Your task to perform on an android device: turn off picture-in-picture Image 0: 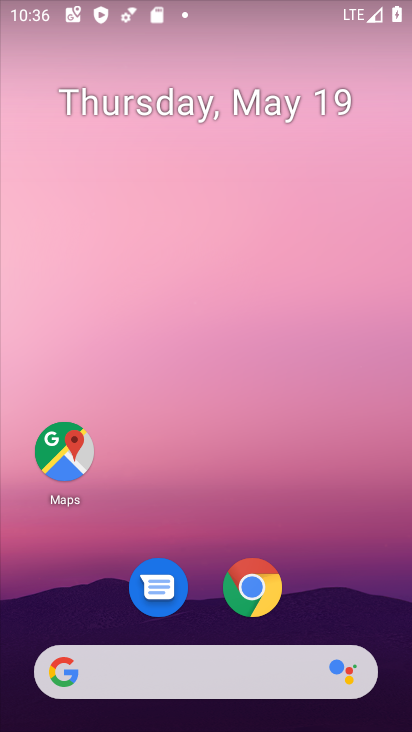
Step 0: click (271, 580)
Your task to perform on an android device: turn off picture-in-picture Image 1: 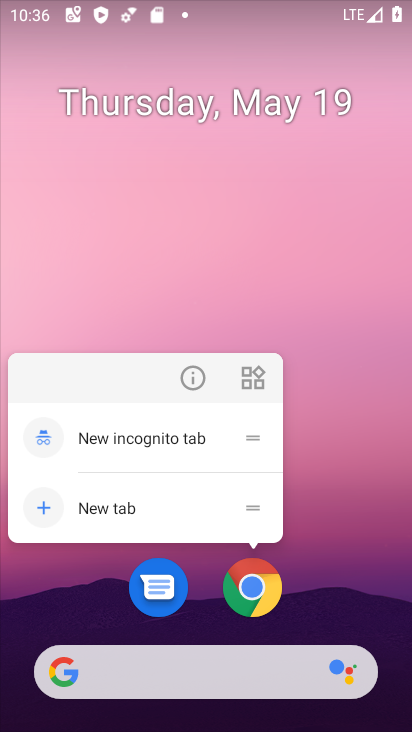
Step 1: click (178, 373)
Your task to perform on an android device: turn off picture-in-picture Image 2: 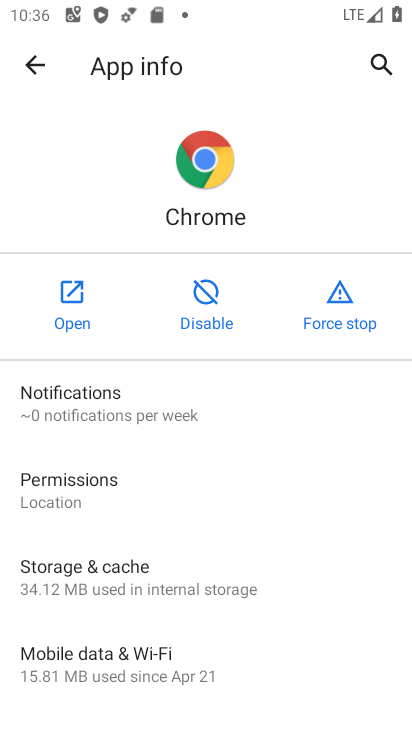
Step 2: drag from (197, 633) to (268, 214)
Your task to perform on an android device: turn off picture-in-picture Image 3: 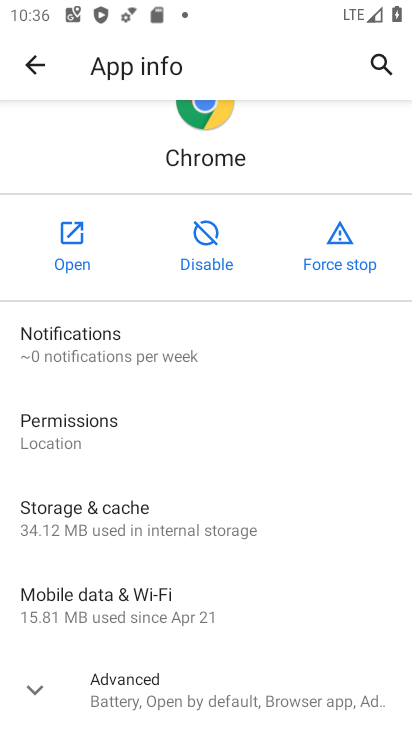
Step 3: click (95, 686)
Your task to perform on an android device: turn off picture-in-picture Image 4: 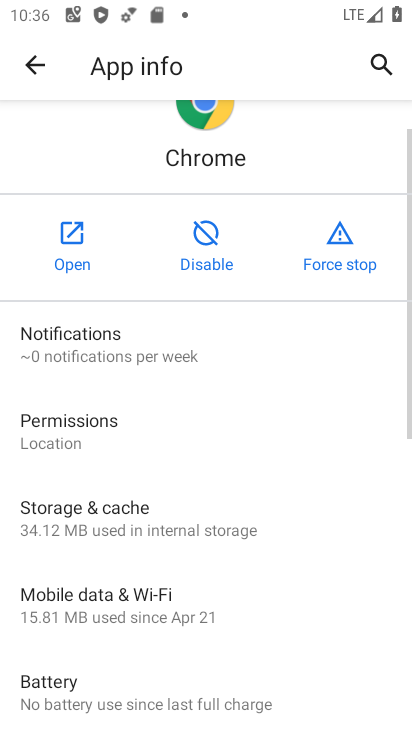
Step 4: drag from (95, 686) to (164, 352)
Your task to perform on an android device: turn off picture-in-picture Image 5: 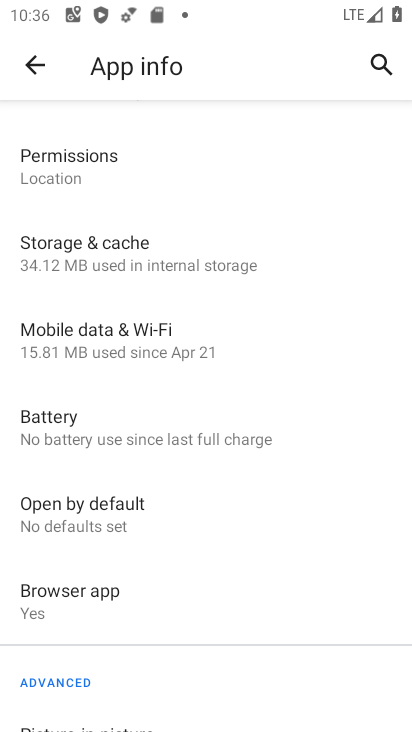
Step 5: drag from (78, 686) to (221, 188)
Your task to perform on an android device: turn off picture-in-picture Image 6: 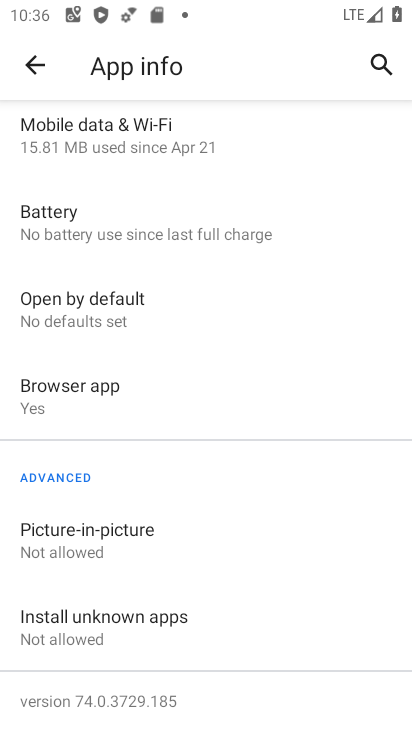
Step 6: click (145, 548)
Your task to perform on an android device: turn off picture-in-picture Image 7: 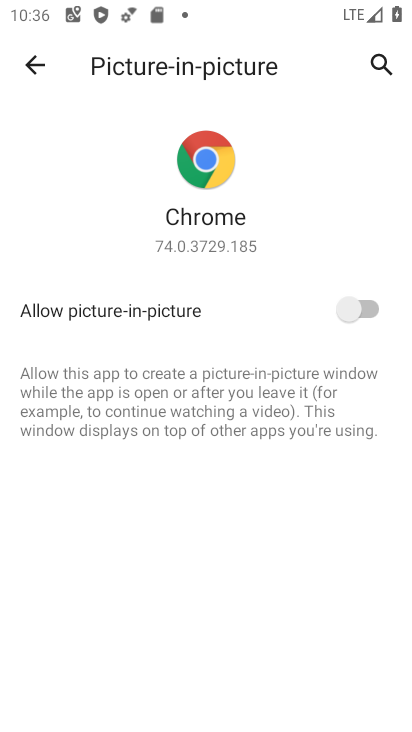
Step 7: task complete